Your task to perform on an android device: install app "Messages" Image 0: 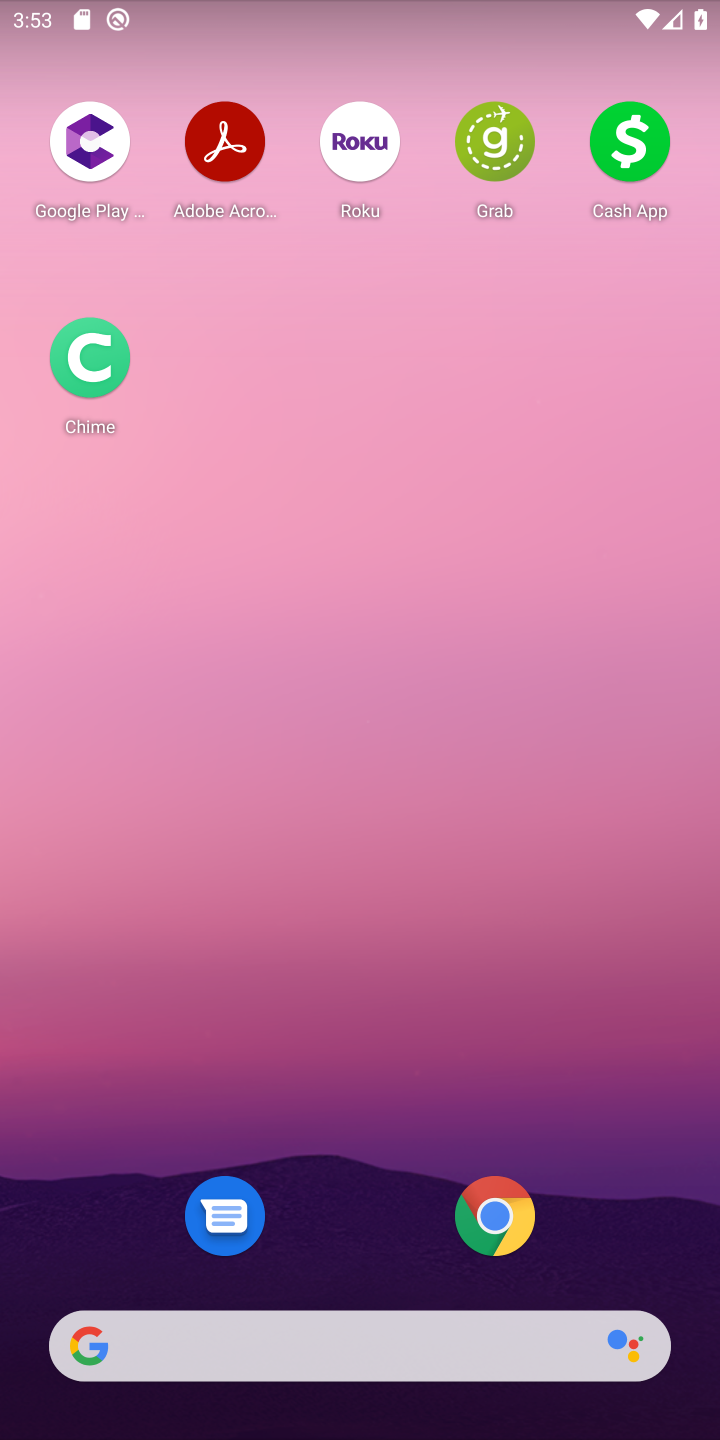
Step 0: drag from (338, 969) to (463, 10)
Your task to perform on an android device: install app "Messages" Image 1: 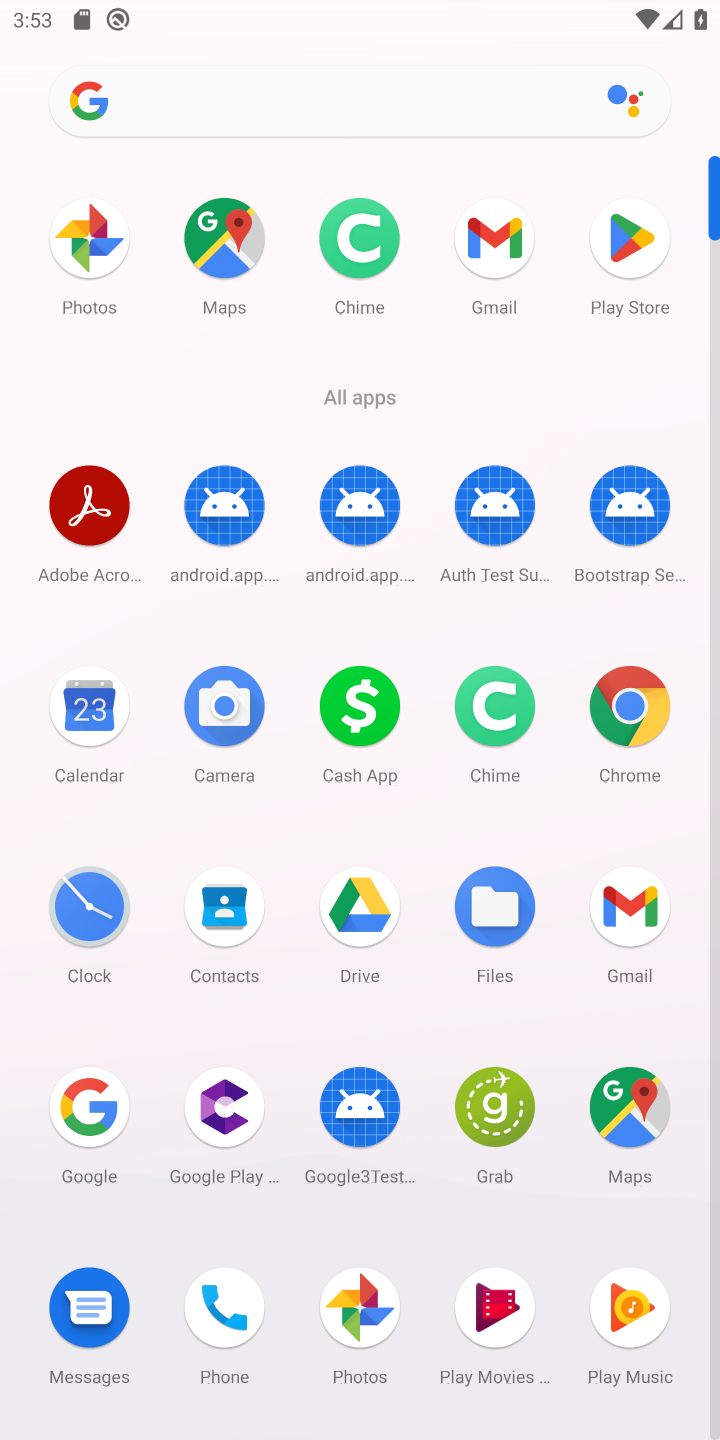
Step 1: click (626, 239)
Your task to perform on an android device: install app "Messages" Image 2: 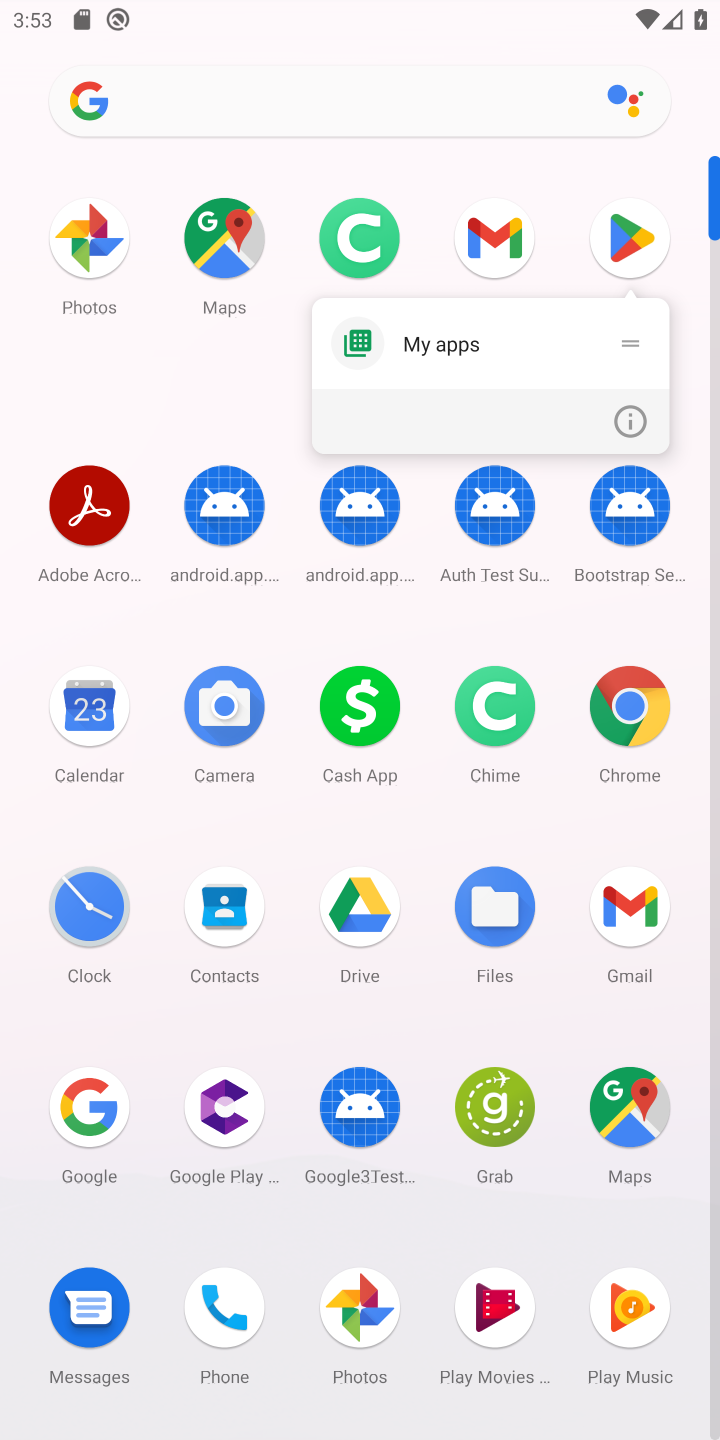
Step 2: click (628, 254)
Your task to perform on an android device: install app "Messages" Image 3: 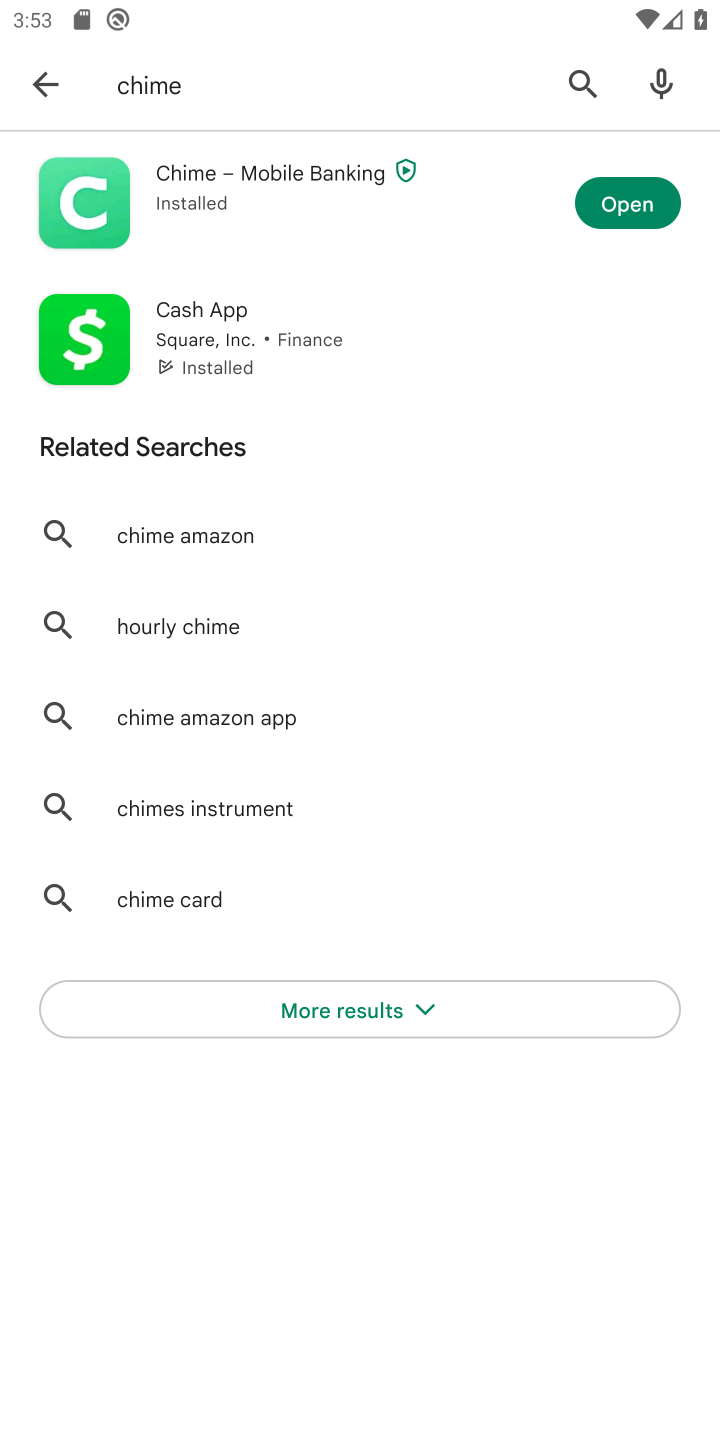
Step 3: click (282, 85)
Your task to perform on an android device: install app "Messages" Image 4: 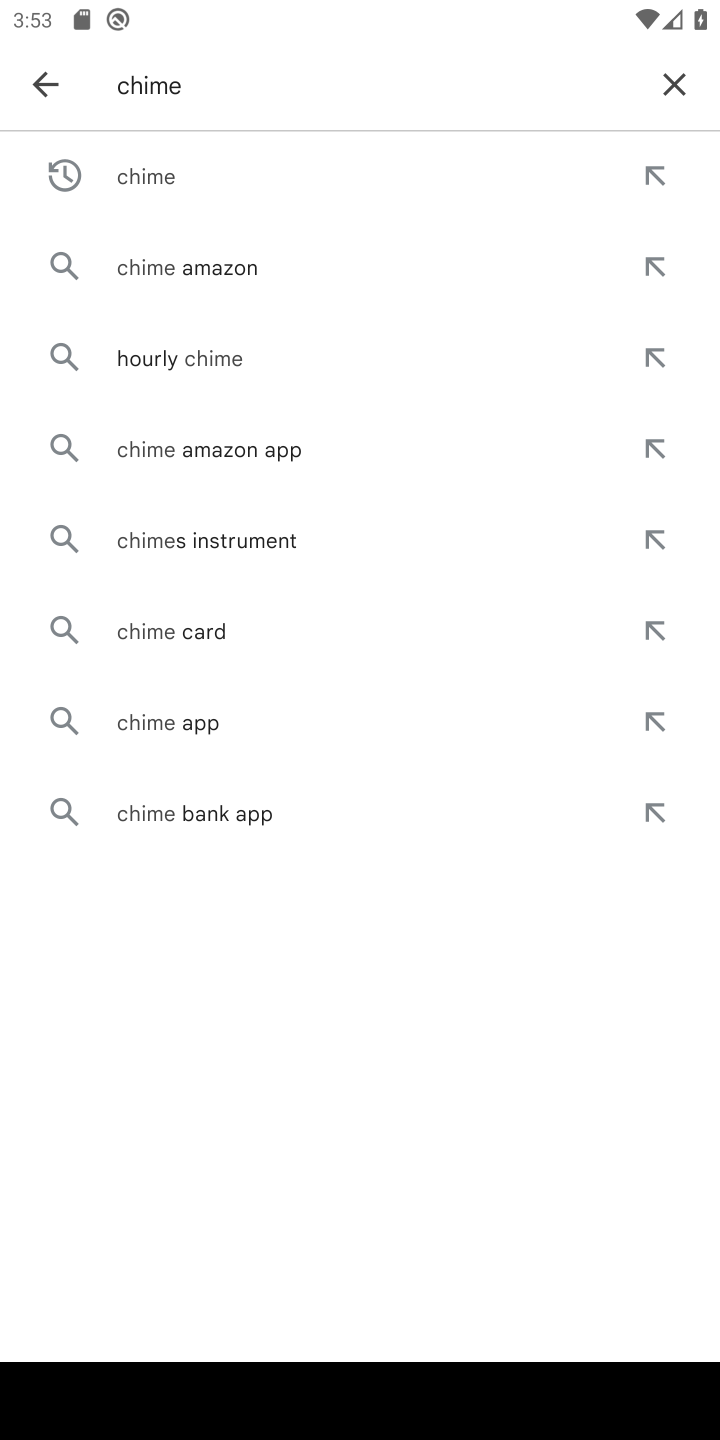
Step 4: click (676, 75)
Your task to perform on an android device: install app "Messages" Image 5: 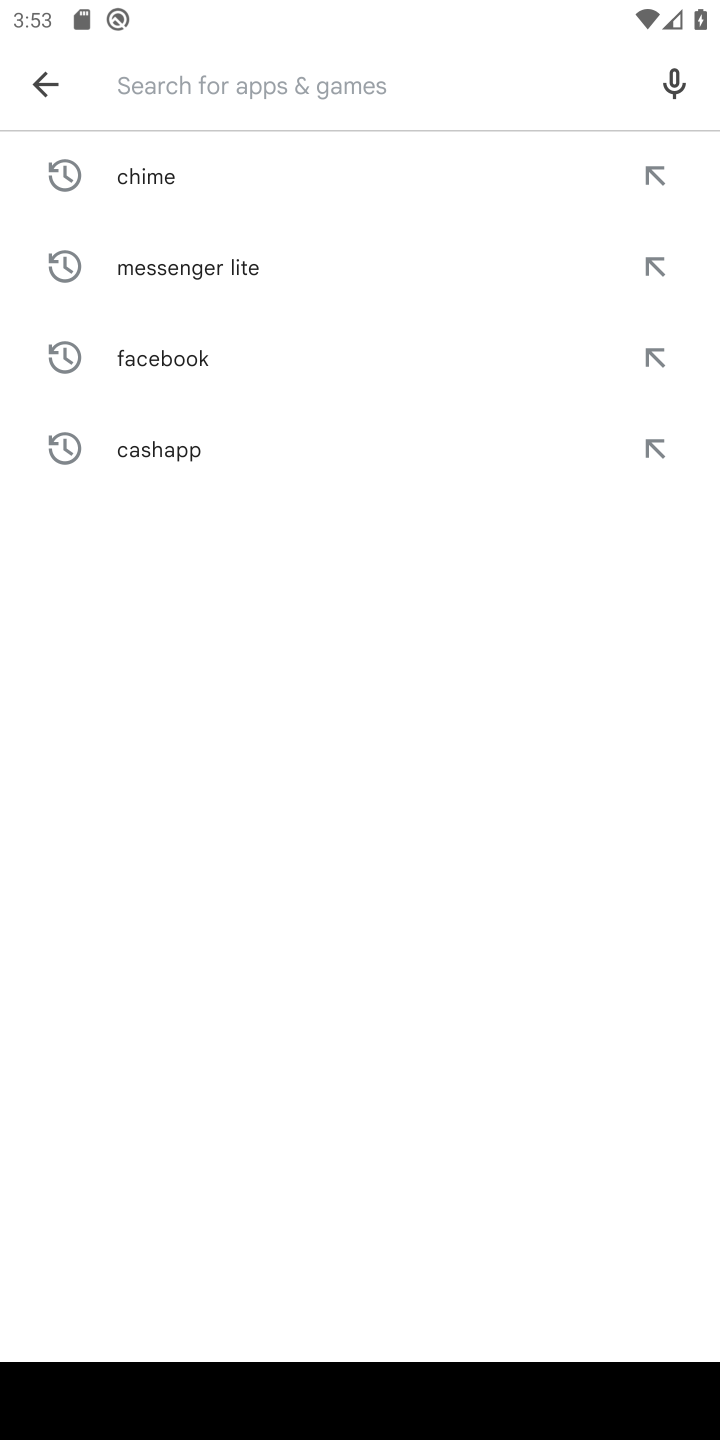
Step 5: type "Messages"
Your task to perform on an android device: install app "Messages" Image 6: 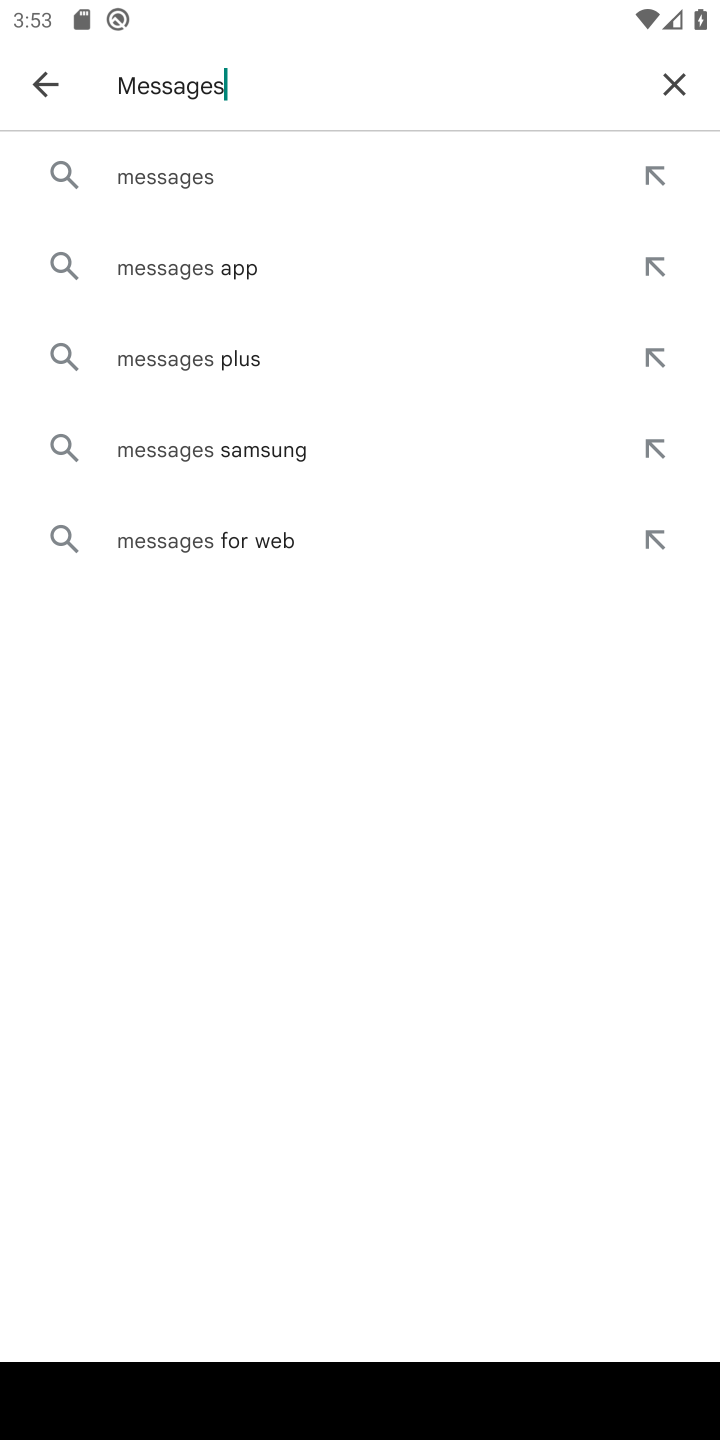
Step 6: click (201, 178)
Your task to perform on an android device: install app "Messages" Image 7: 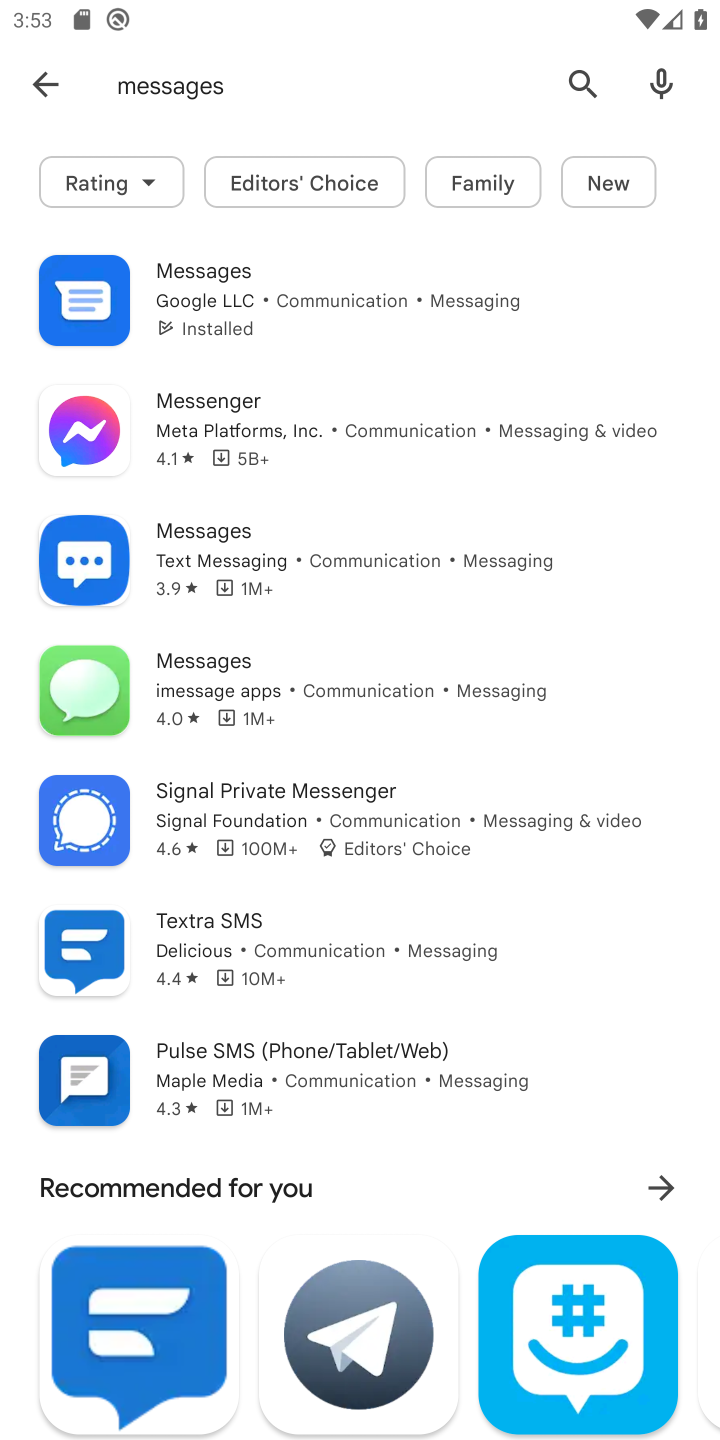
Step 7: click (245, 541)
Your task to perform on an android device: install app "Messages" Image 8: 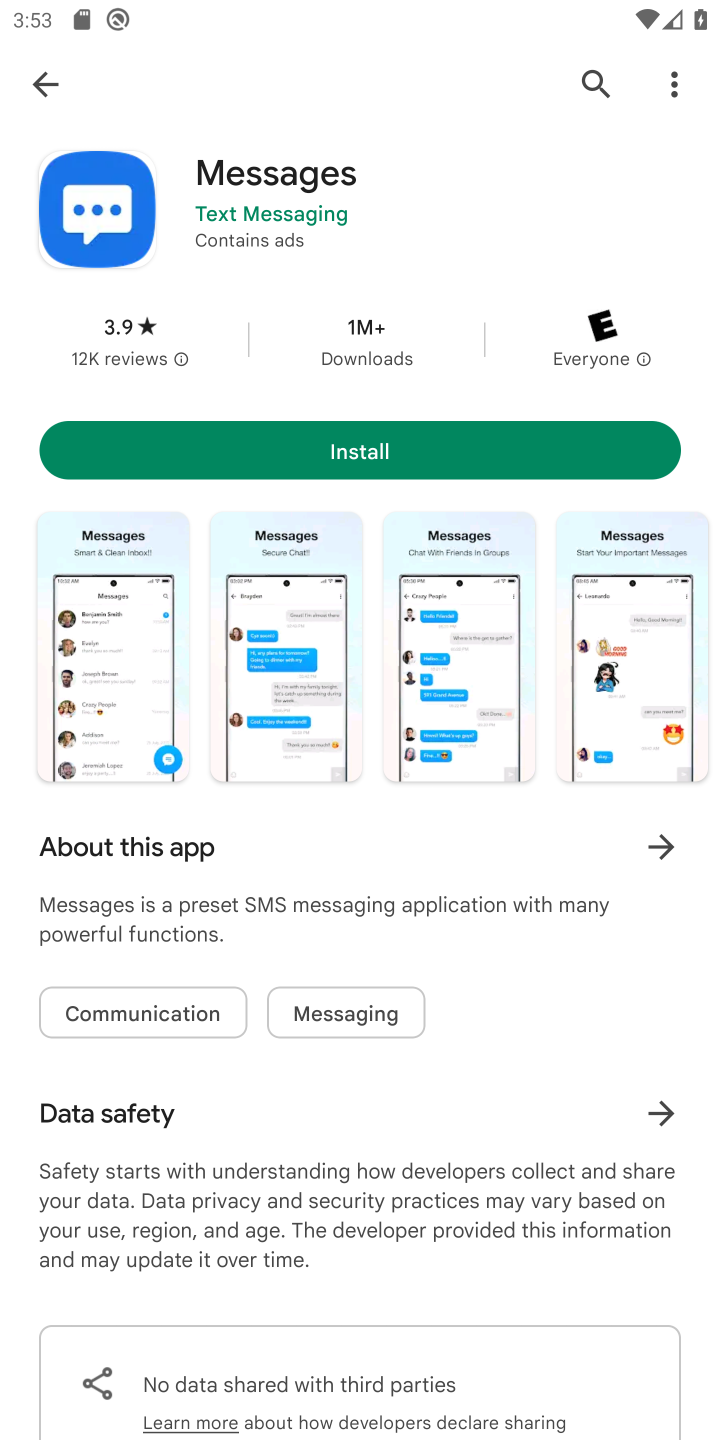
Step 8: click (333, 456)
Your task to perform on an android device: install app "Messages" Image 9: 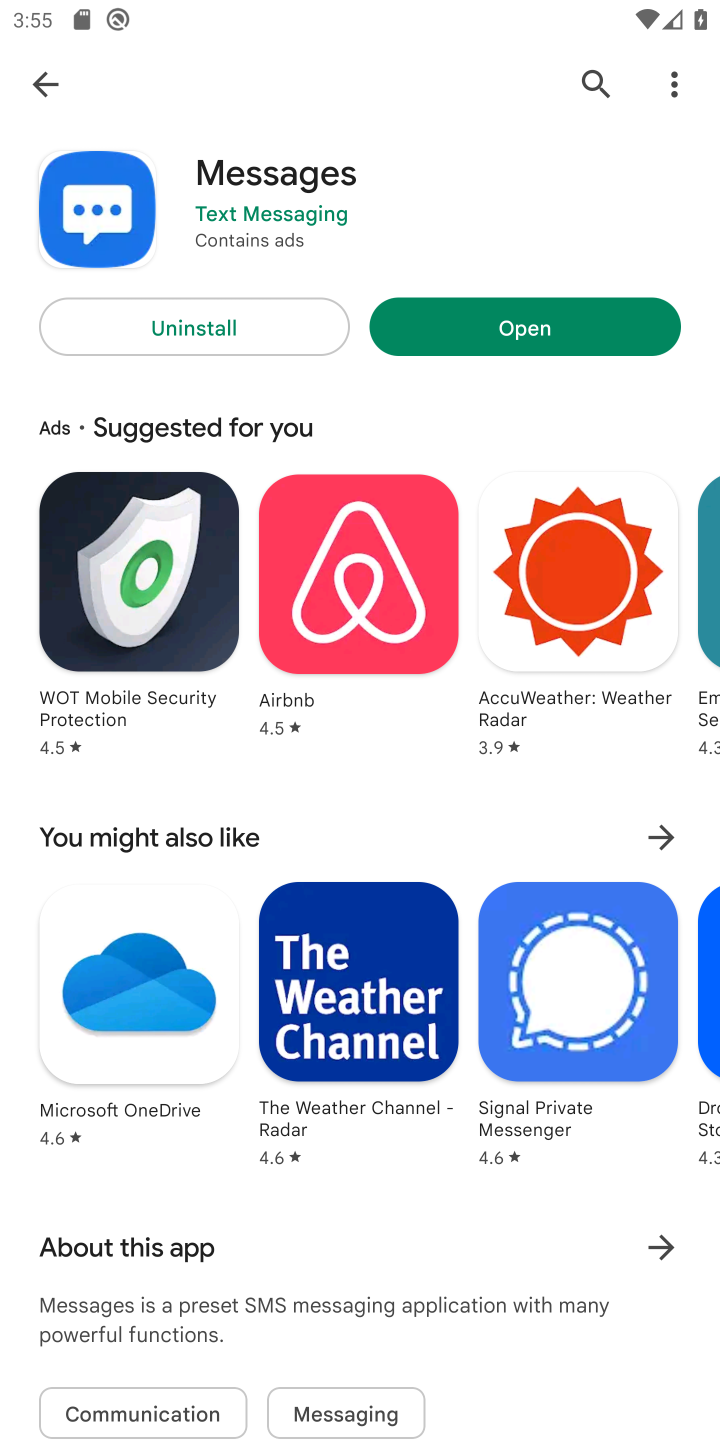
Step 9: click (495, 346)
Your task to perform on an android device: install app "Messages" Image 10: 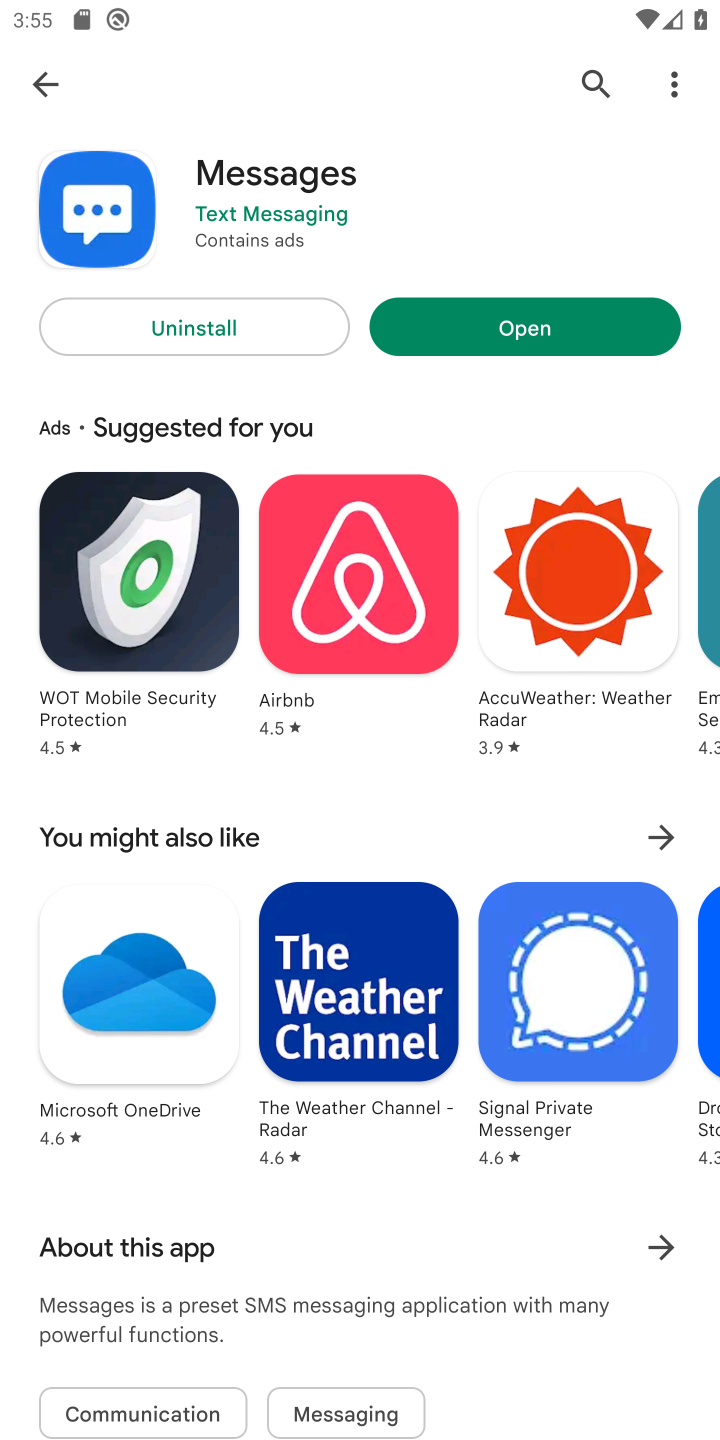
Step 10: task complete